Your task to perform on an android device: Go to Yahoo.com Image 0: 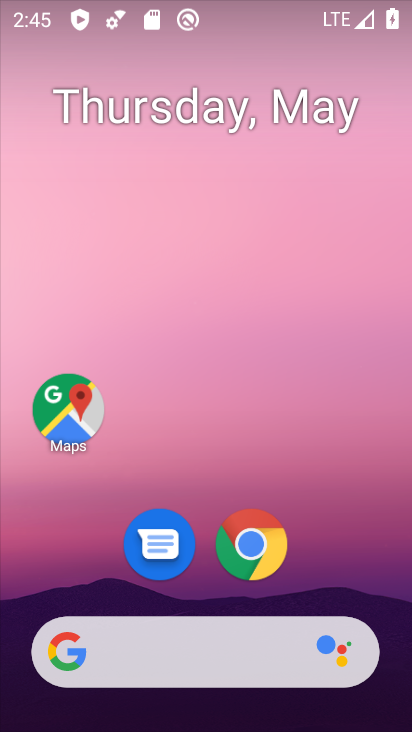
Step 0: click (211, 660)
Your task to perform on an android device: Go to Yahoo.com Image 1: 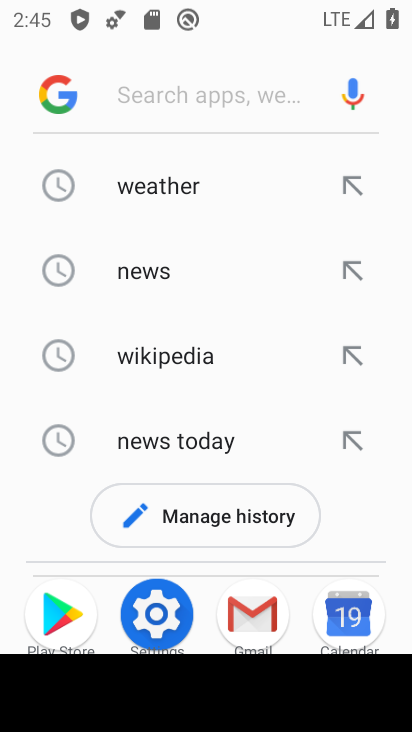
Step 1: type "yahoo.com"
Your task to perform on an android device: Go to Yahoo.com Image 2: 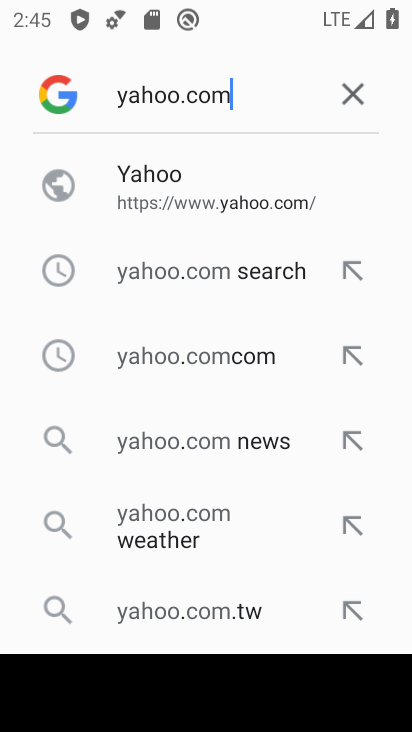
Step 2: click (199, 188)
Your task to perform on an android device: Go to Yahoo.com Image 3: 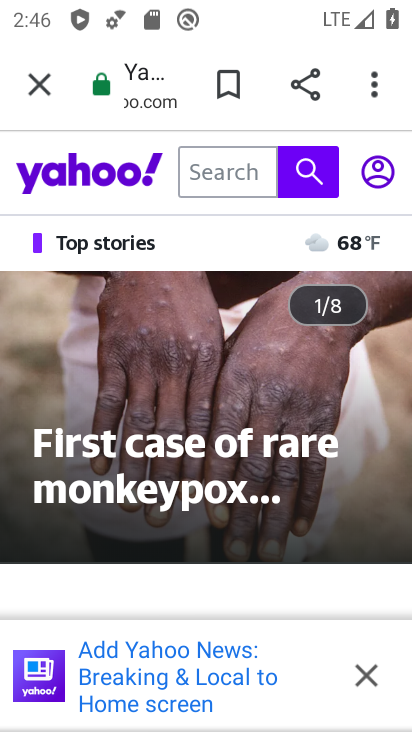
Step 3: task complete